Your task to perform on an android device: Open Google Maps and go to "Timeline" Image 0: 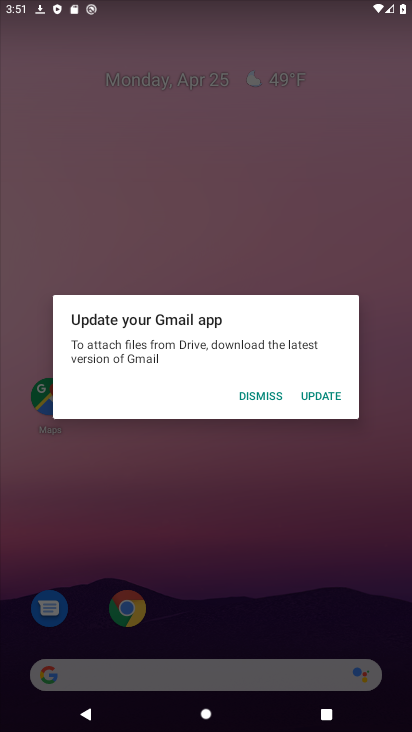
Step 0: press home button
Your task to perform on an android device: Open Google Maps and go to "Timeline" Image 1: 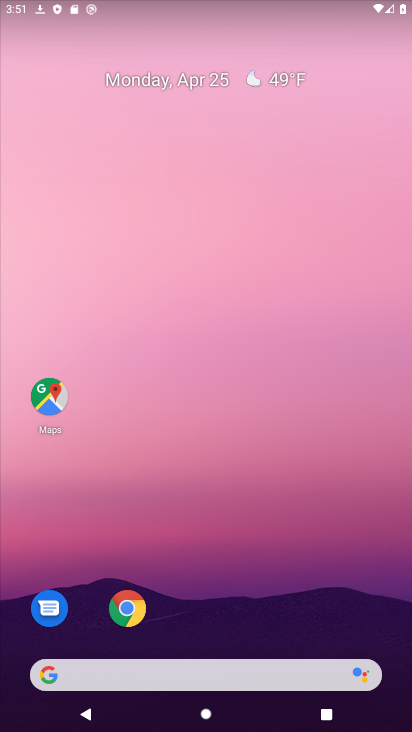
Step 1: drag from (262, 383) to (276, 89)
Your task to perform on an android device: Open Google Maps and go to "Timeline" Image 2: 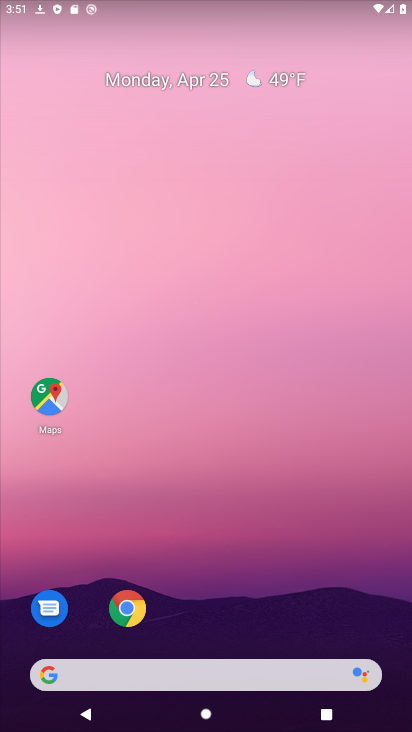
Step 2: drag from (198, 467) to (254, 50)
Your task to perform on an android device: Open Google Maps and go to "Timeline" Image 3: 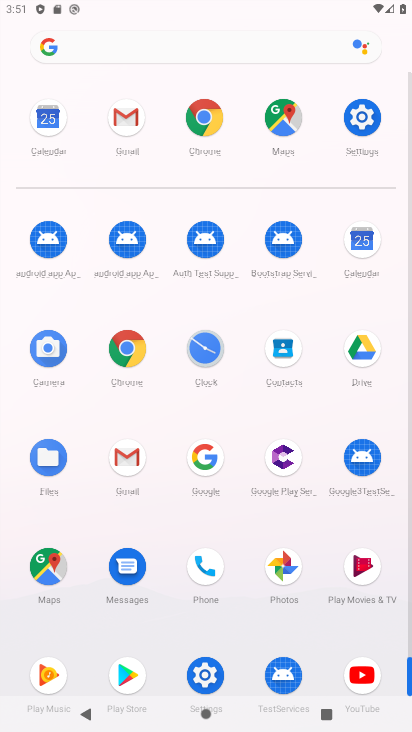
Step 3: click (64, 577)
Your task to perform on an android device: Open Google Maps and go to "Timeline" Image 4: 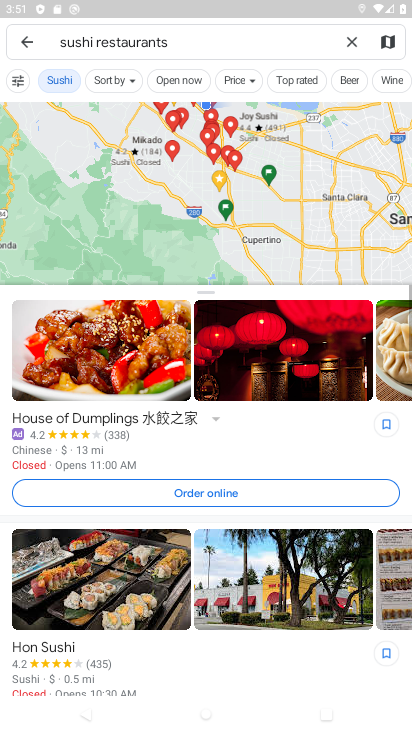
Step 4: click (20, 41)
Your task to perform on an android device: Open Google Maps and go to "Timeline" Image 5: 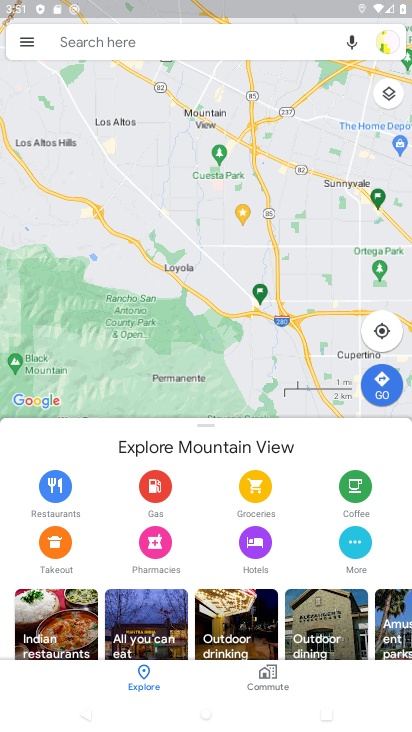
Step 5: click (33, 48)
Your task to perform on an android device: Open Google Maps and go to "Timeline" Image 6: 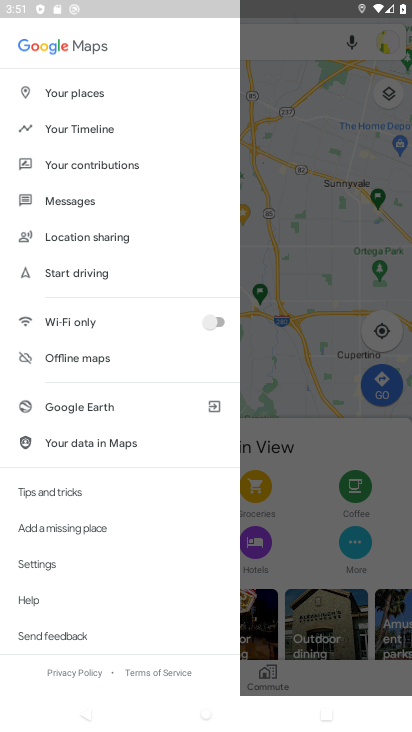
Step 6: click (97, 133)
Your task to perform on an android device: Open Google Maps and go to "Timeline" Image 7: 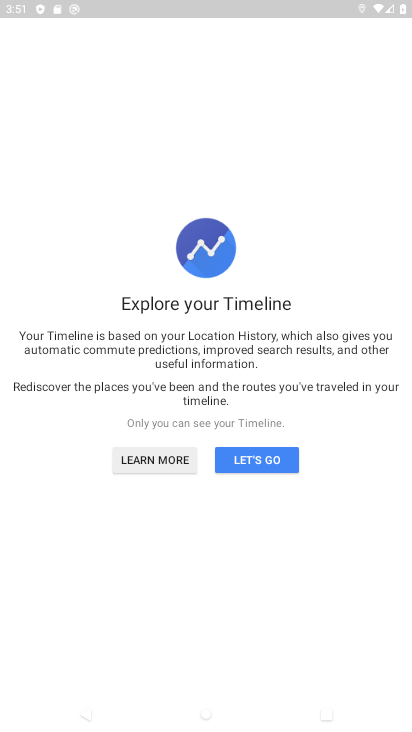
Step 7: click (272, 452)
Your task to perform on an android device: Open Google Maps and go to "Timeline" Image 8: 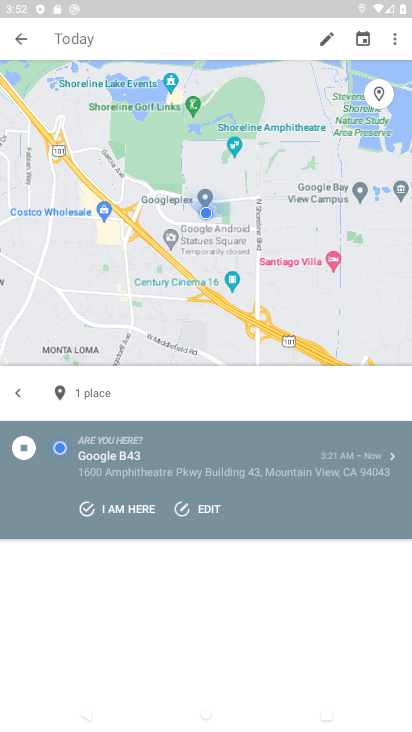
Step 8: task complete